Your task to perform on an android device: turn pop-ups on in chrome Image 0: 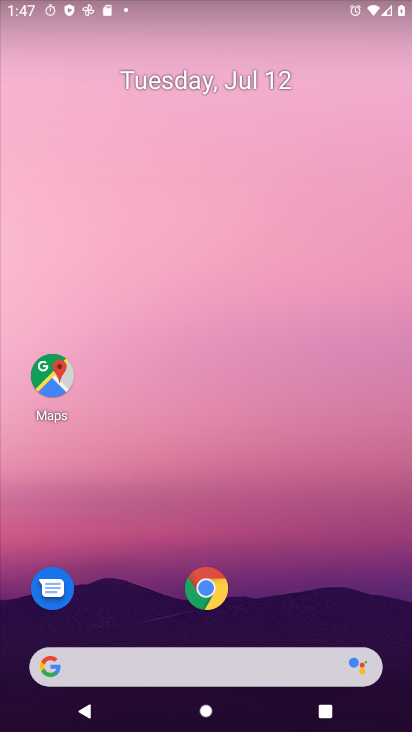
Step 0: press home button
Your task to perform on an android device: turn pop-ups on in chrome Image 1: 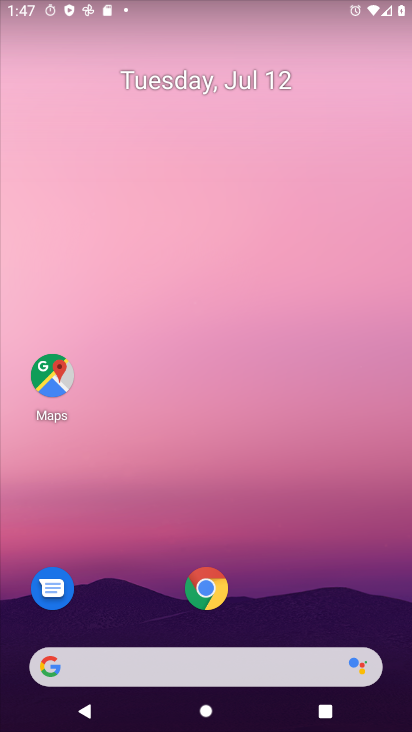
Step 1: click (217, 594)
Your task to perform on an android device: turn pop-ups on in chrome Image 2: 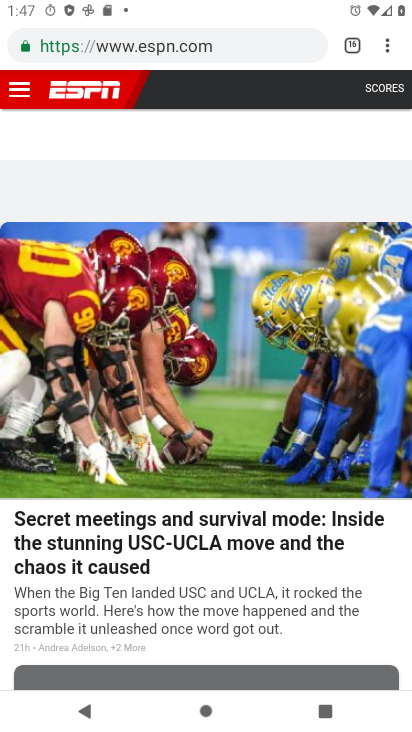
Step 2: drag from (387, 43) to (239, 547)
Your task to perform on an android device: turn pop-ups on in chrome Image 3: 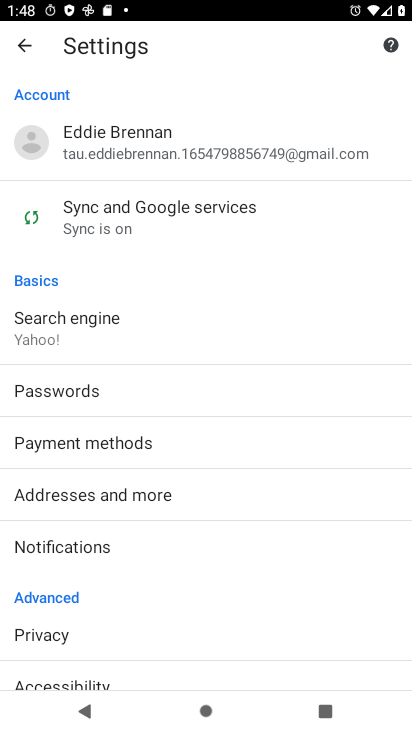
Step 3: drag from (150, 643) to (388, 161)
Your task to perform on an android device: turn pop-ups on in chrome Image 4: 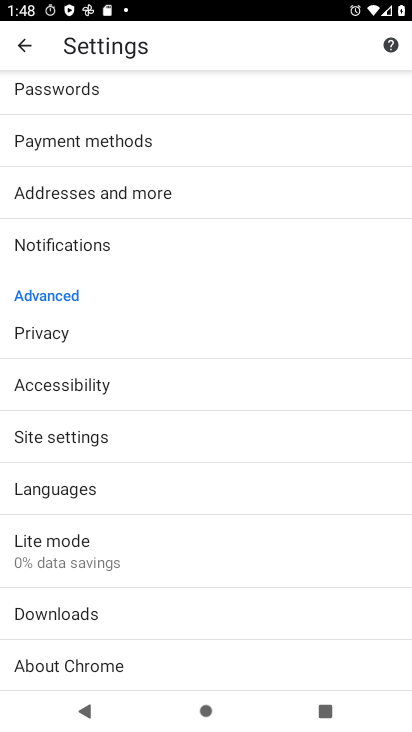
Step 4: click (98, 434)
Your task to perform on an android device: turn pop-ups on in chrome Image 5: 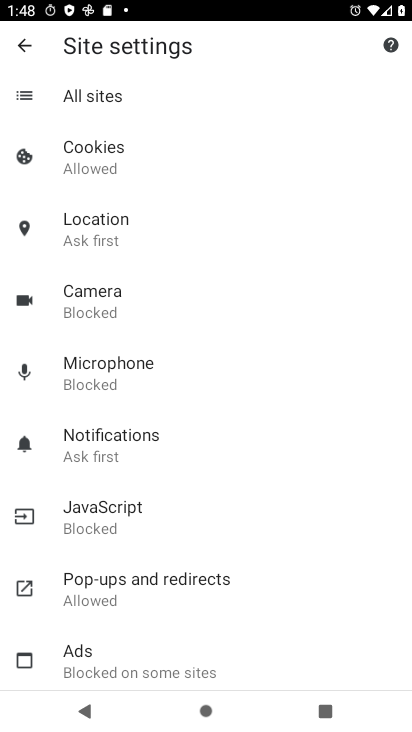
Step 5: click (108, 588)
Your task to perform on an android device: turn pop-ups on in chrome Image 6: 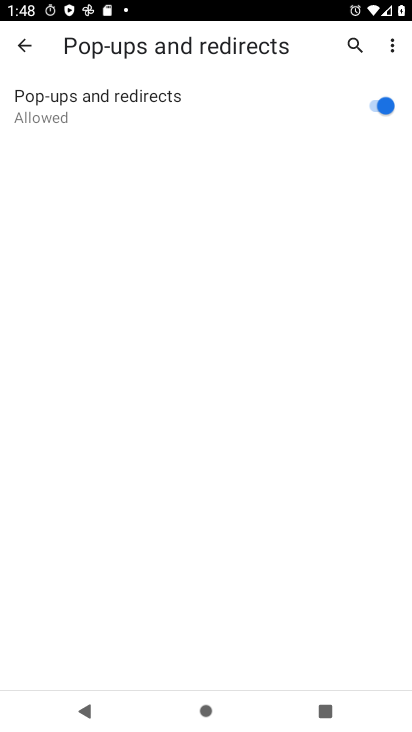
Step 6: task complete